Your task to perform on an android device: find which apps use the phone's location Image 0: 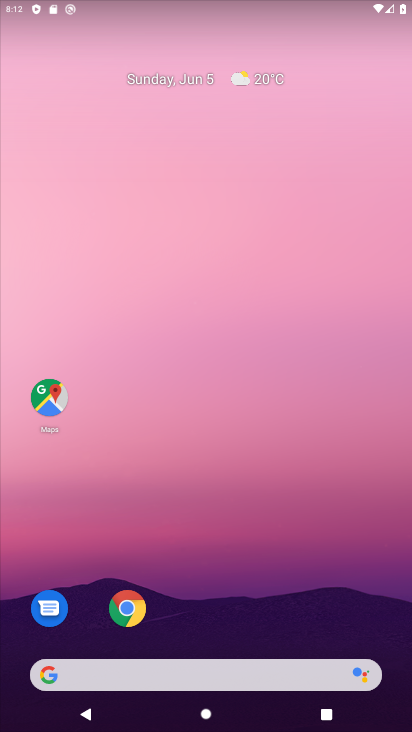
Step 0: drag from (16, 539) to (198, 179)
Your task to perform on an android device: find which apps use the phone's location Image 1: 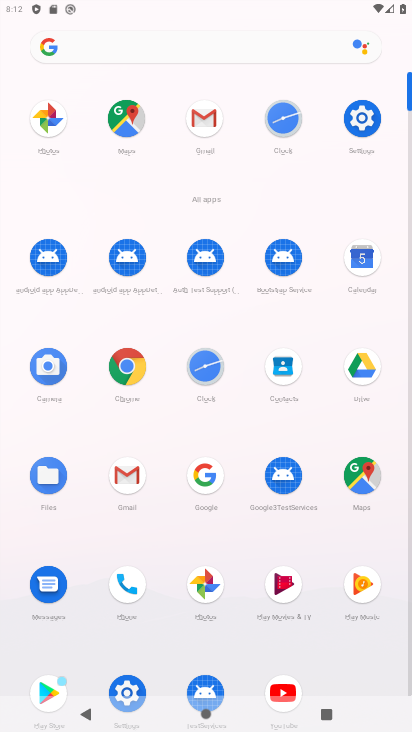
Step 1: click (360, 122)
Your task to perform on an android device: find which apps use the phone's location Image 2: 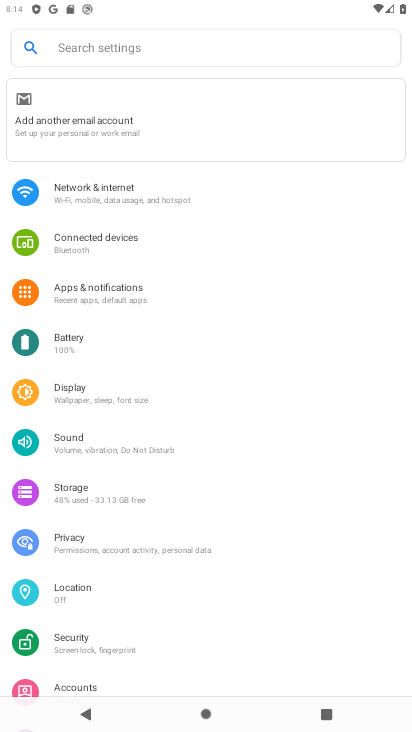
Step 2: click (77, 587)
Your task to perform on an android device: find which apps use the phone's location Image 3: 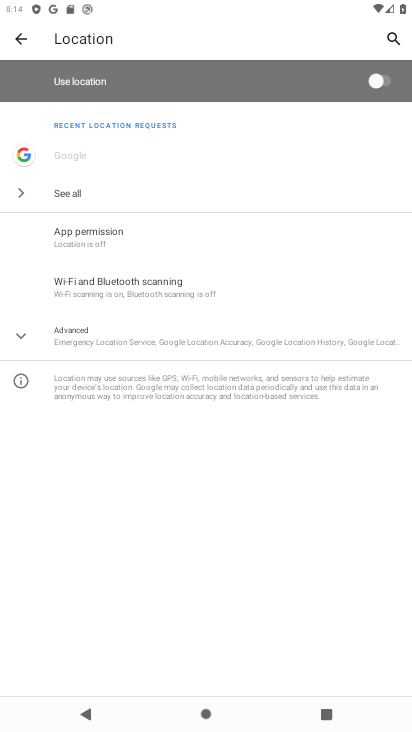
Step 3: click (60, 246)
Your task to perform on an android device: find which apps use the phone's location Image 4: 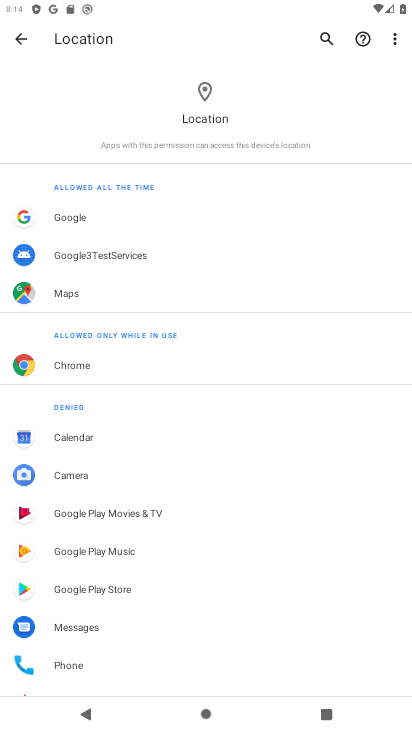
Step 4: task complete